Your task to perform on an android device: Open Google Chrome and open the bookmarks view Image 0: 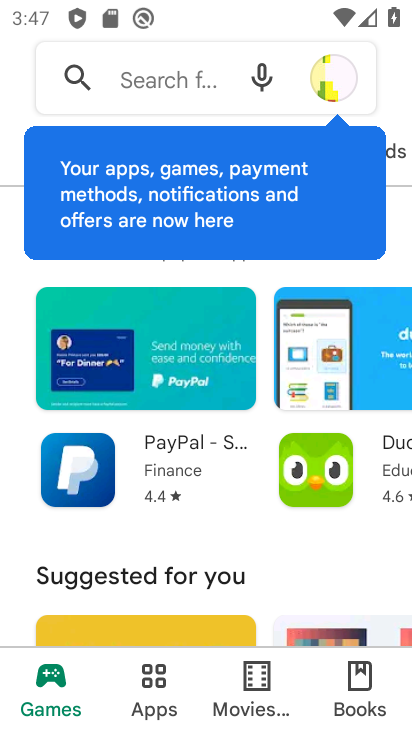
Step 0: press home button
Your task to perform on an android device: Open Google Chrome and open the bookmarks view Image 1: 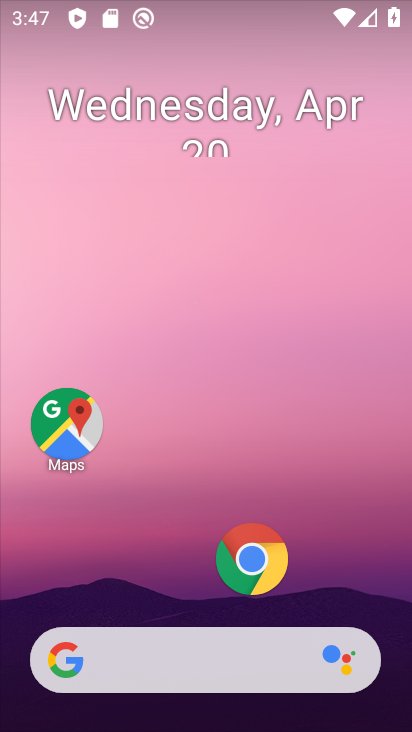
Step 1: click (246, 562)
Your task to perform on an android device: Open Google Chrome and open the bookmarks view Image 2: 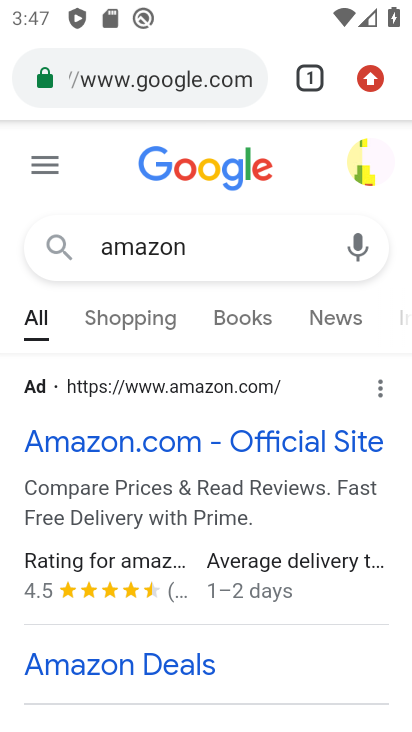
Step 2: click (373, 79)
Your task to perform on an android device: Open Google Chrome and open the bookmarks view Image 3: 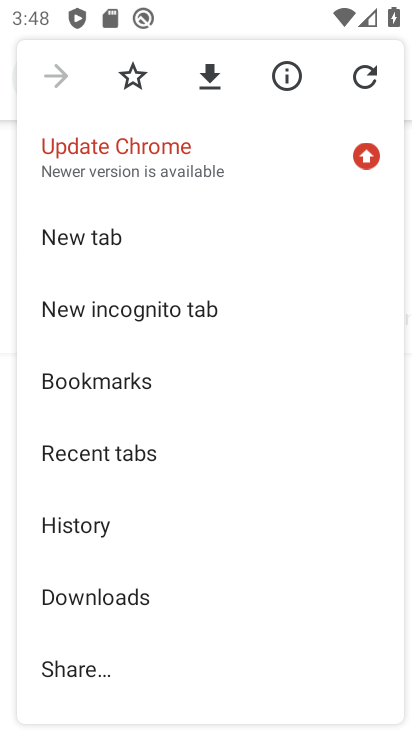
Step 3: click (140, 387)
Your task to perform on an android device: Open Google Chrome and open the bookmarks view Image 4: 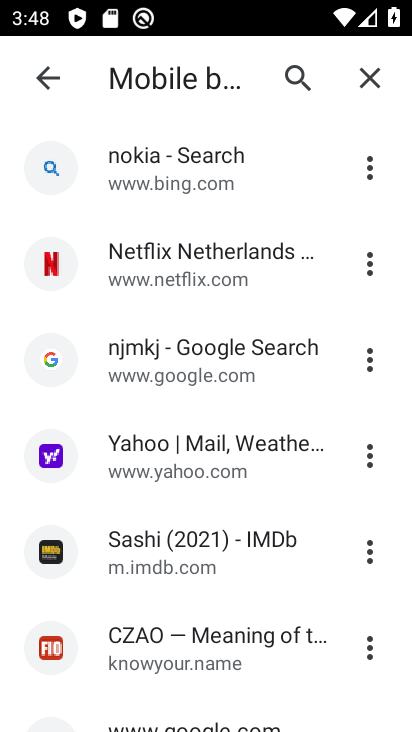
Step 4: task complete